Your task to perform on an android device: Search for a runner rug on Crate & Barrel Image 0: 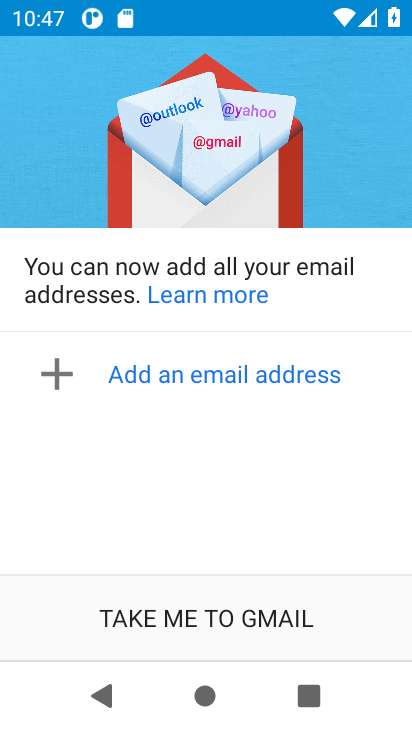
Step 0: click (172, 593)
Your task to perform on an android device: Search for a runner rug on Crate & Barrel Image 1: 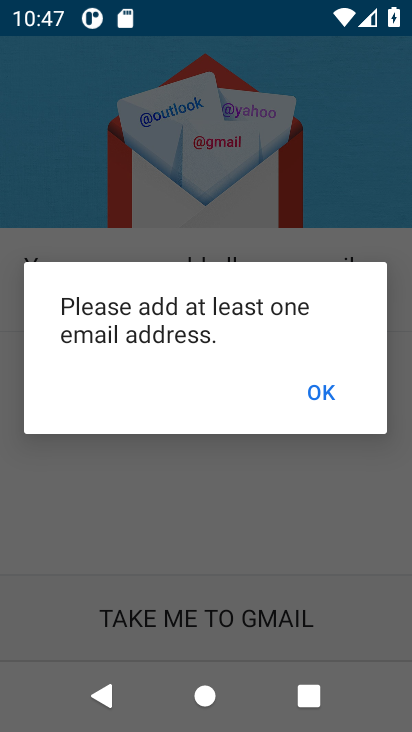
Step 1: click (323, 403)
Your task to perform on an android device: Search for a runner rug on Crate & Barrel Image 2: 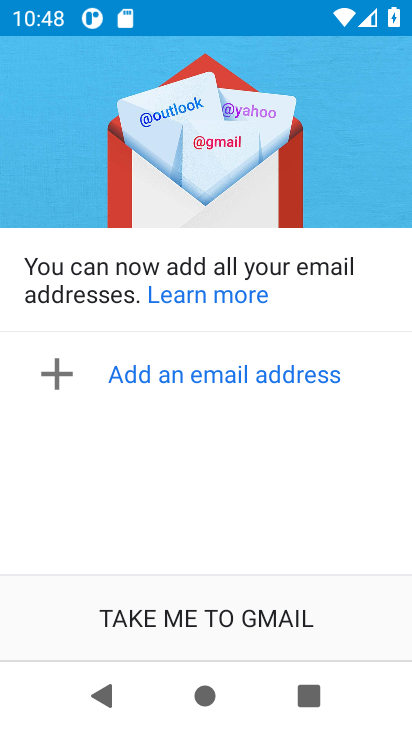
Step 2: task complete